Your task to perform on an android device: What is the recent news? Image 0: 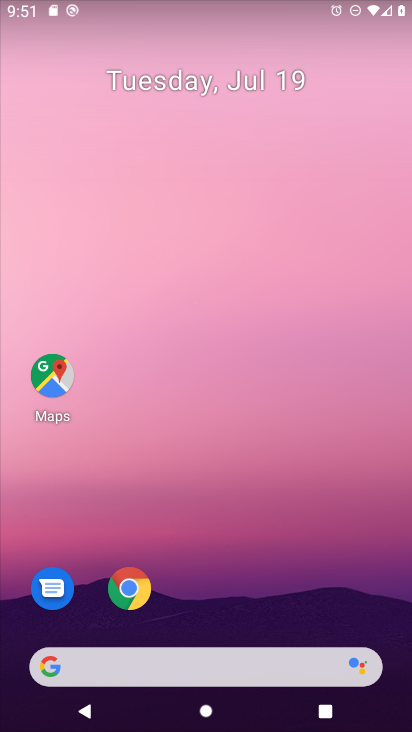
Step 0: drag from (1, 265) to (405, 480)
Your task to perform on an android device: What is the recent news? Image 1: 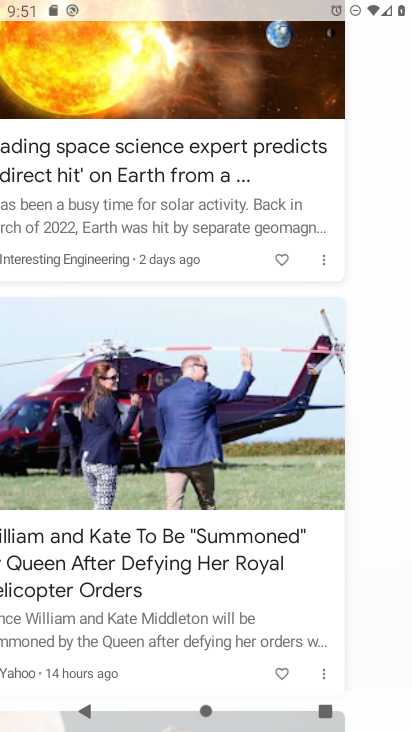
Step 1: task complete